Your task to perform on an android device: install app "Duolingo: language lessons" Image 0: 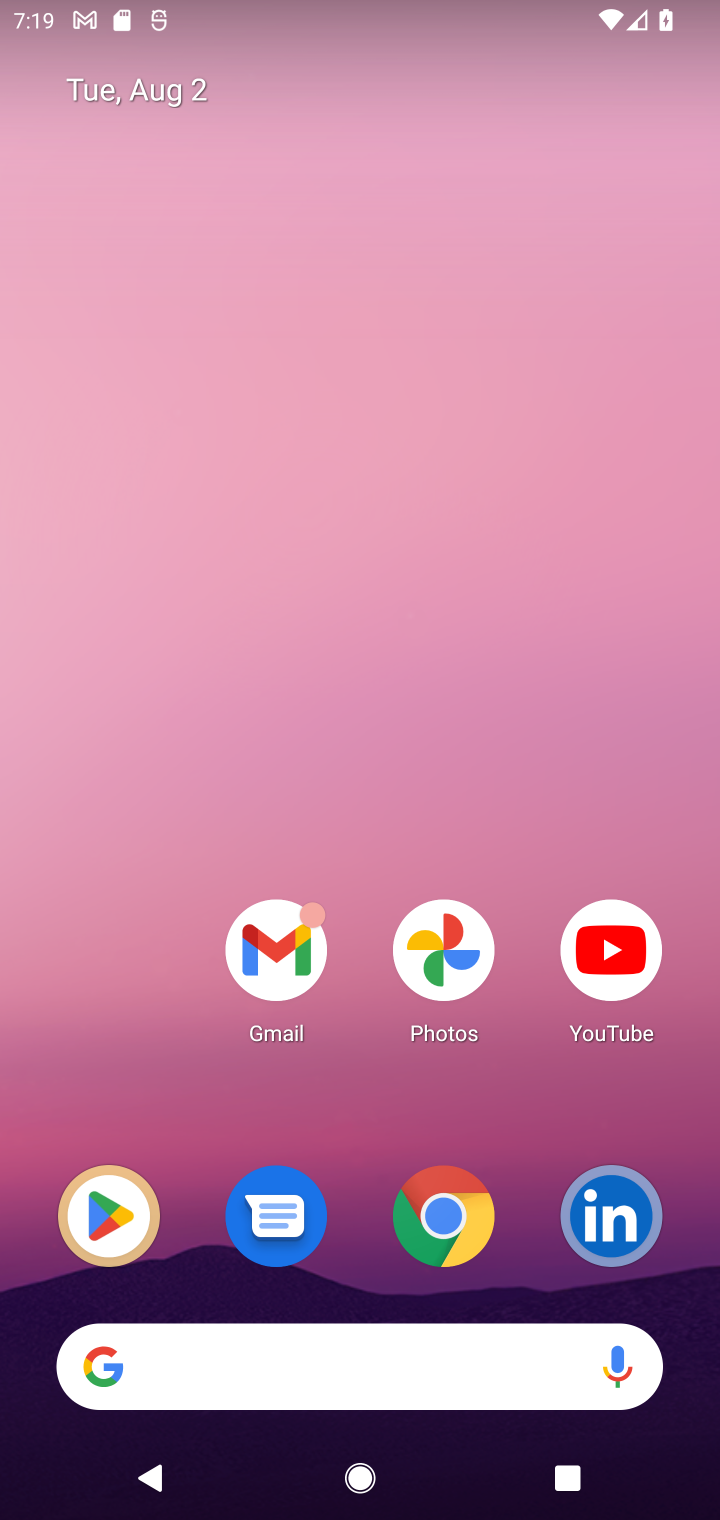
Step 0: click (111, 1210)
Your task to perform on an android device: install app "Duolingo: language lessons" Image 1: 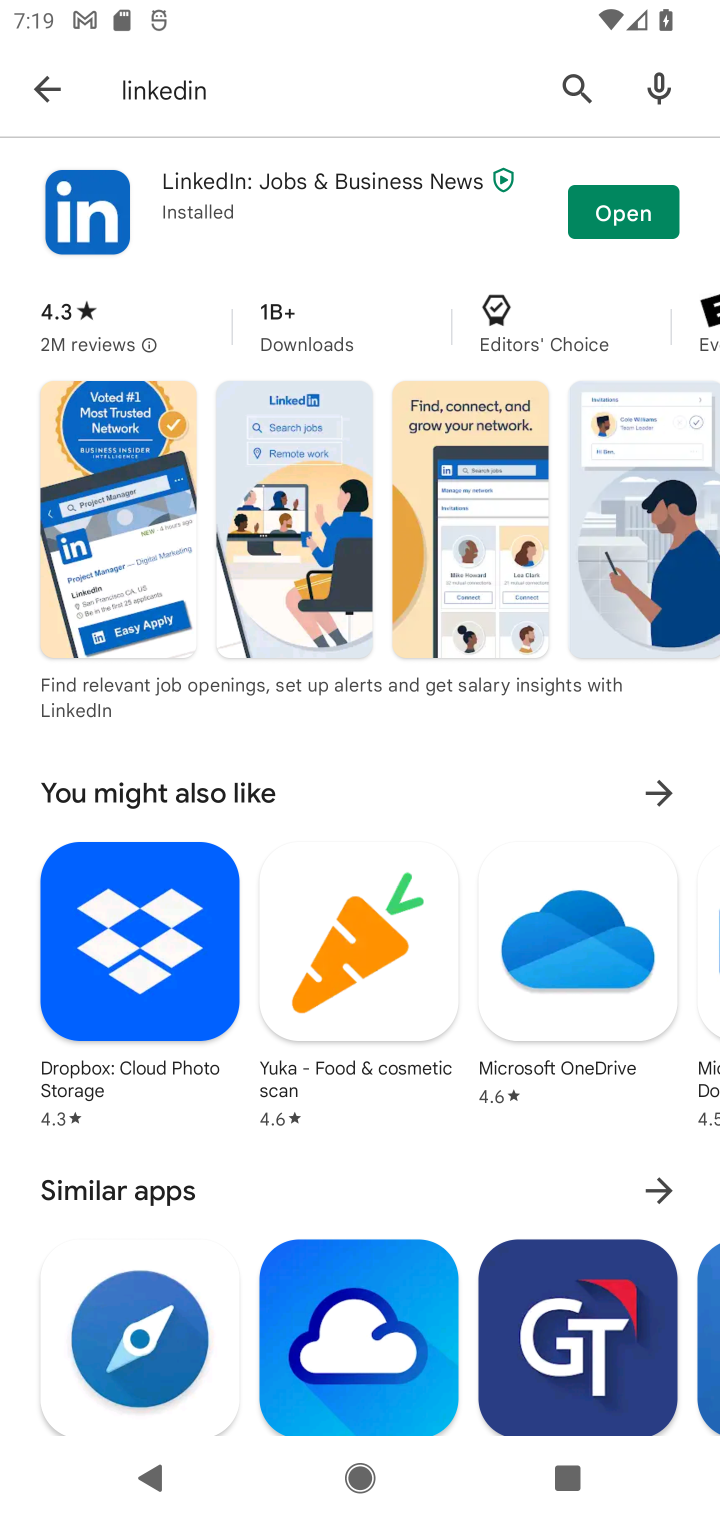
Step 1: click (570, 71)
Your task to perform on an android device: install app "Duolingo: language lessons" Image 2: 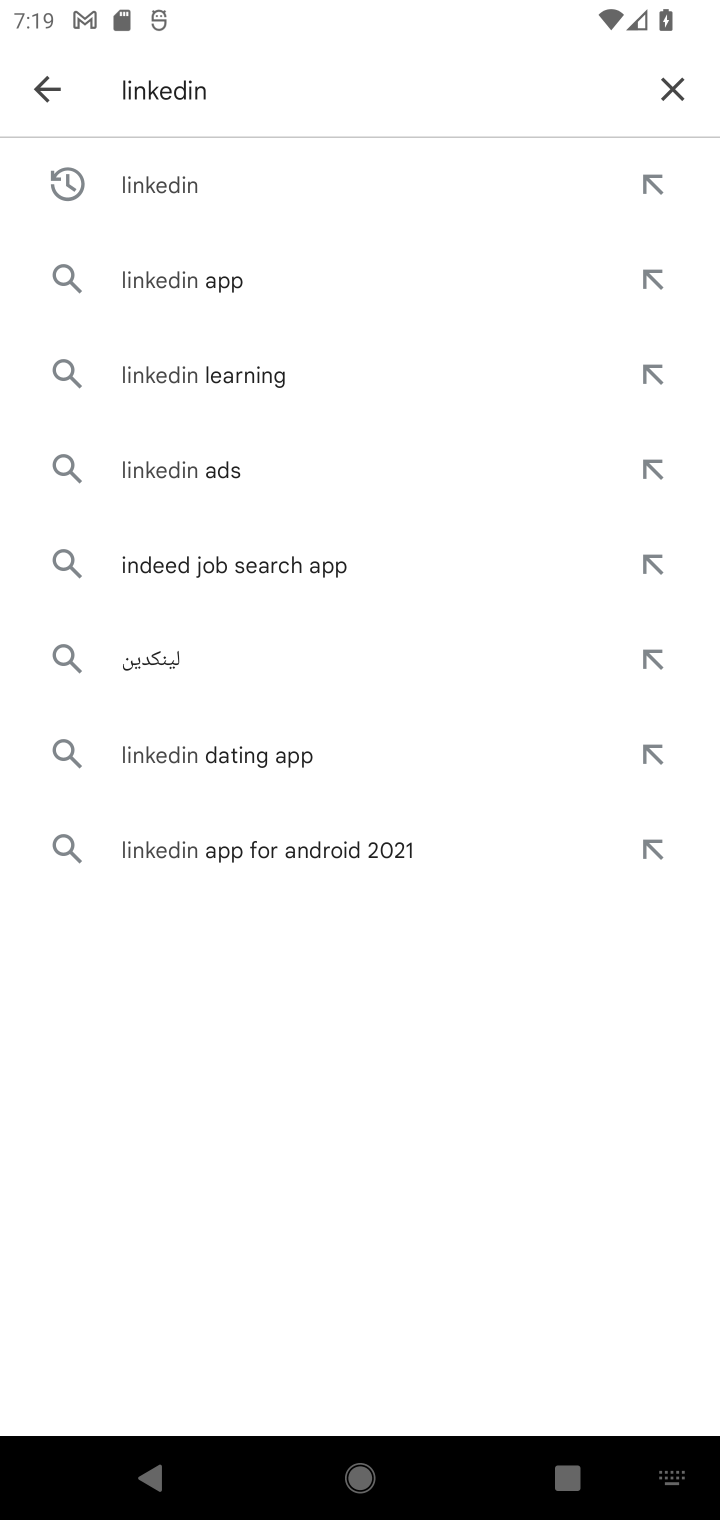
Step 2: click (679, 84)
Your task to perform on an android device: install app "Duolingo: language lessons" Image 3: 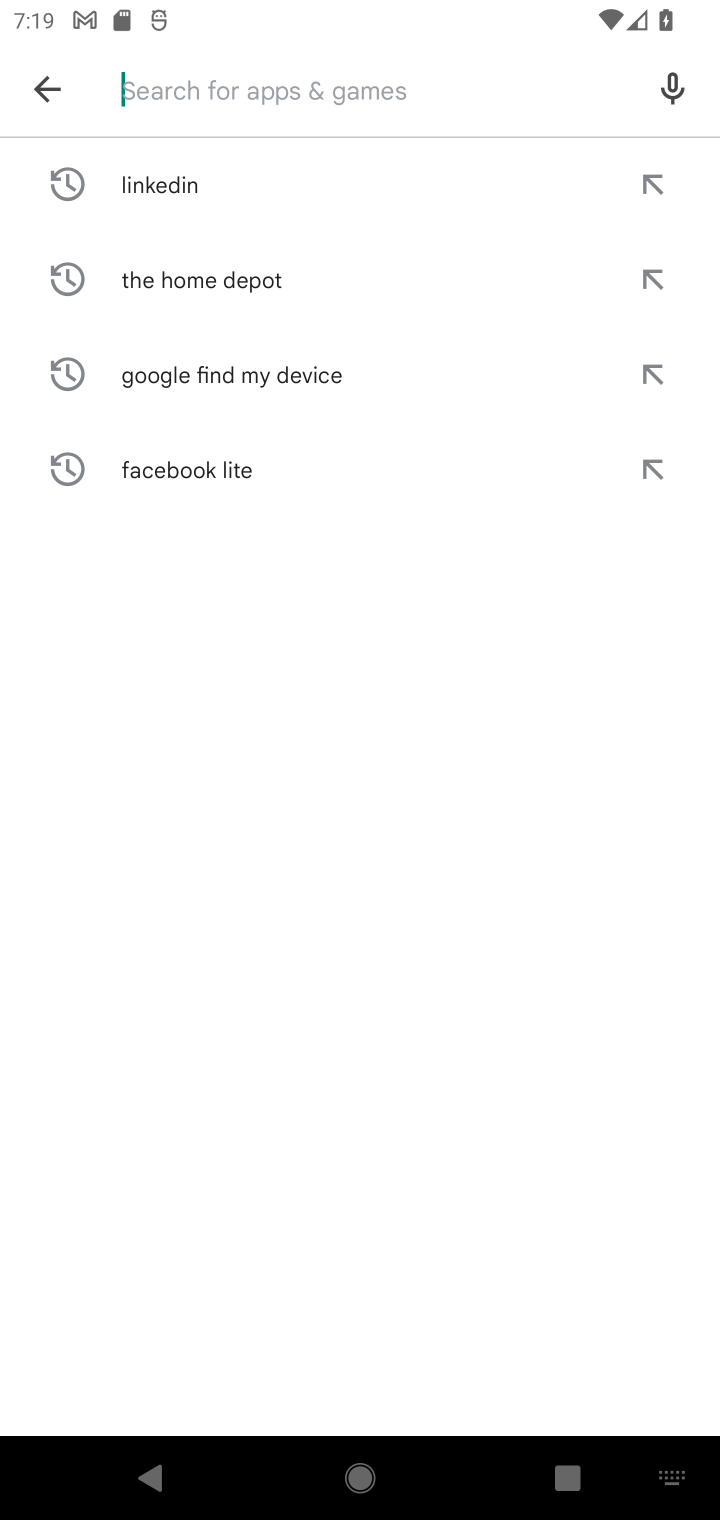
Step 3: type "Duolingo: language lessons"
Your task to perform on an android device: install app "Duolingo: language lessons" Image 4: 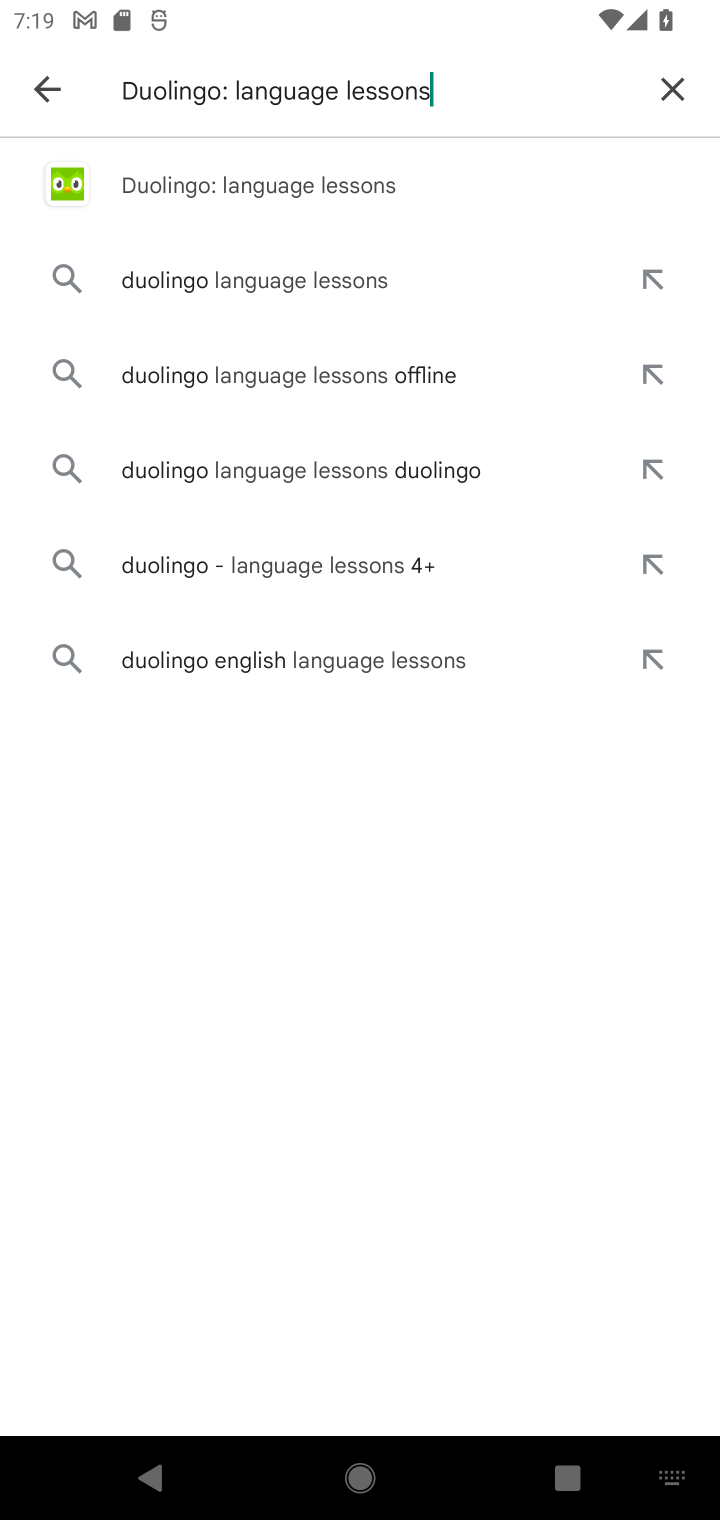
Step 4: click (237, 182)
Your task to perform on an android device: install app "Duolingo: language lessons" Image 5: 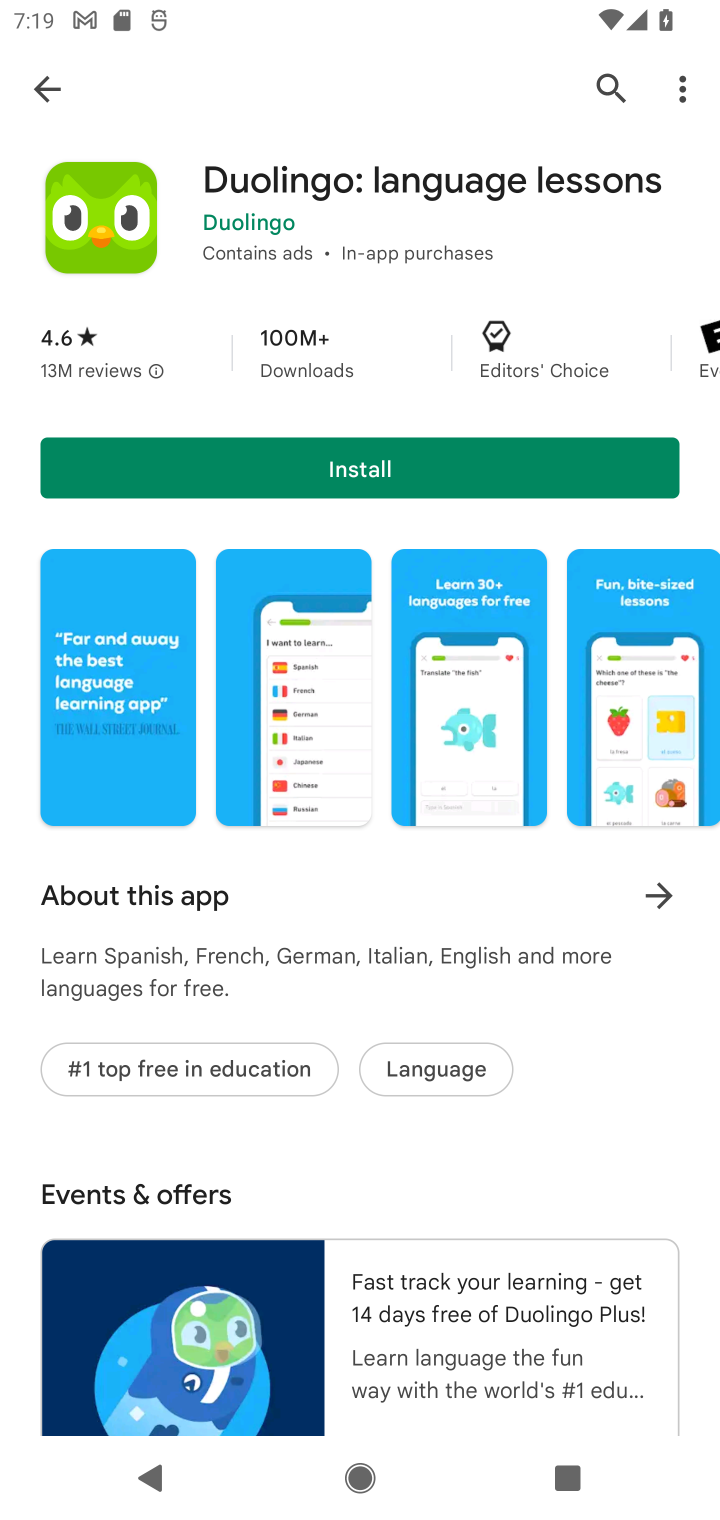
Step 5: click (403, 466)
Your task to perform on an android device: install app "Duolingo: language lessons" Image 6: 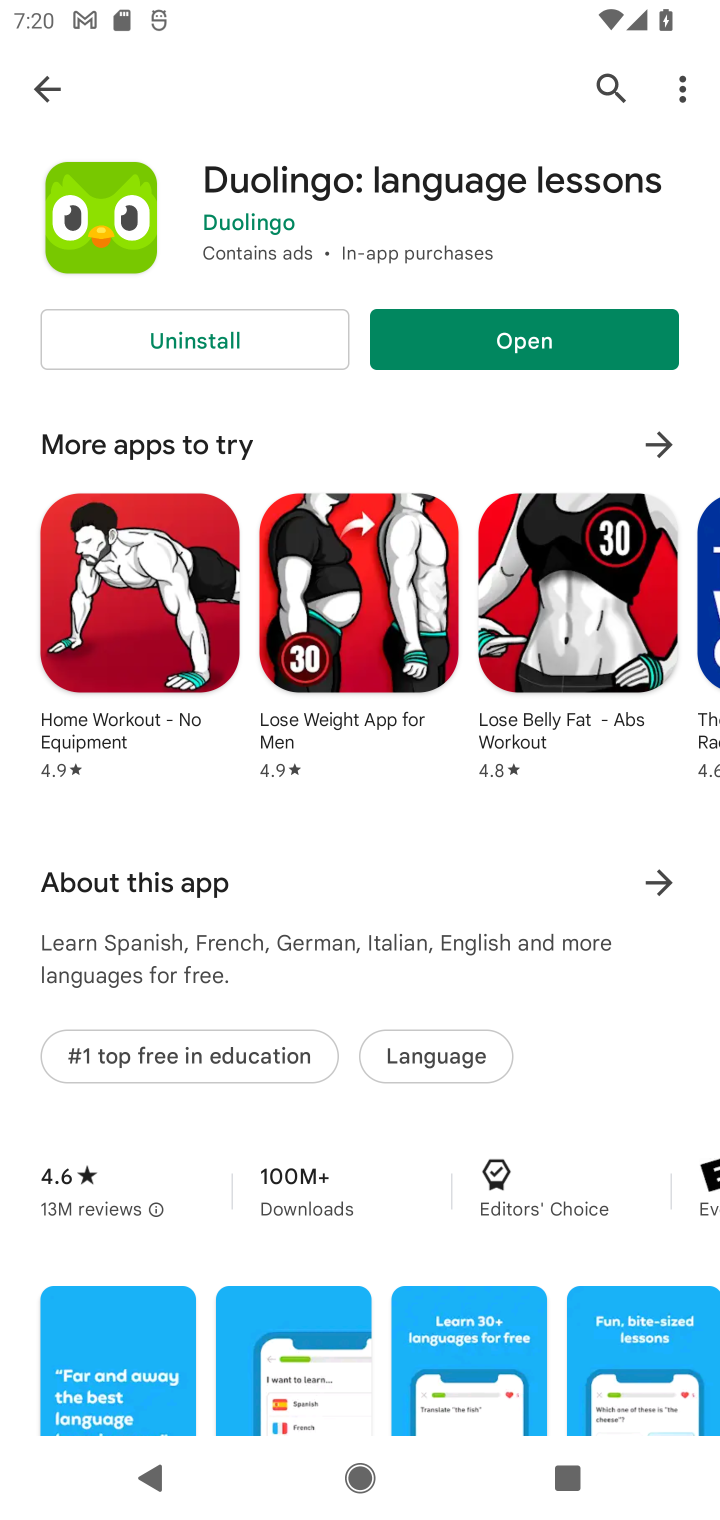
Step 6: task complete